Your task to perform on an android device: change the clock style Image 0: 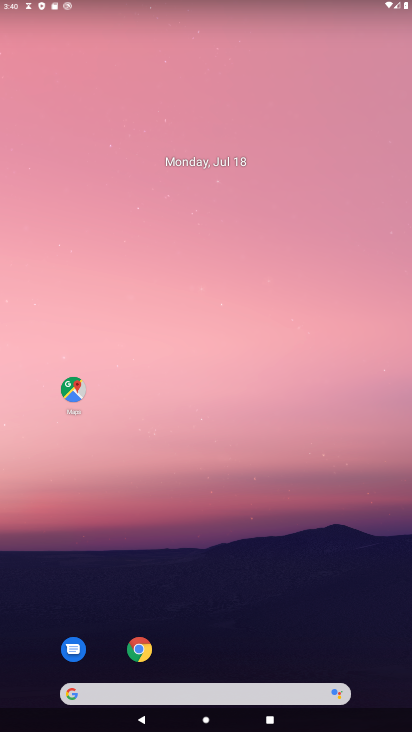
Step 0: press home button
Your task to perform on an android device: change the clock style Image 1: 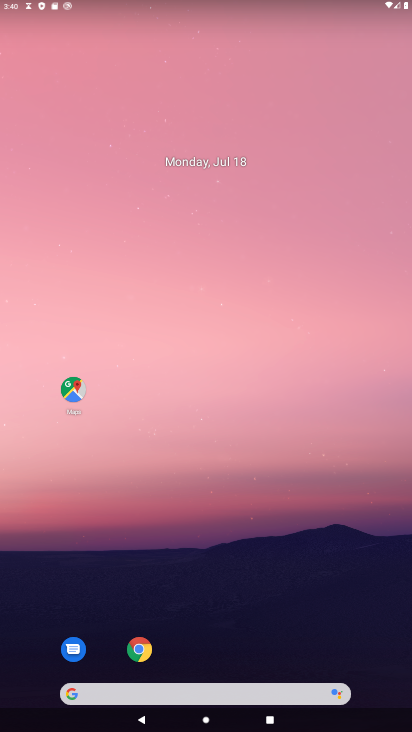
Step 1: drag from (252, 549) to (191, 8)
Your task to perform on an android device: change the clock style Image 2: 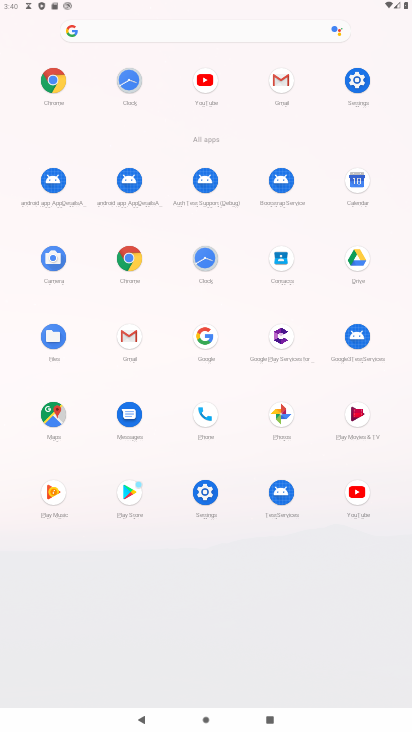
Step 2: click (206, 257)
Your task to perform on an android device: change the clock style Image 3: 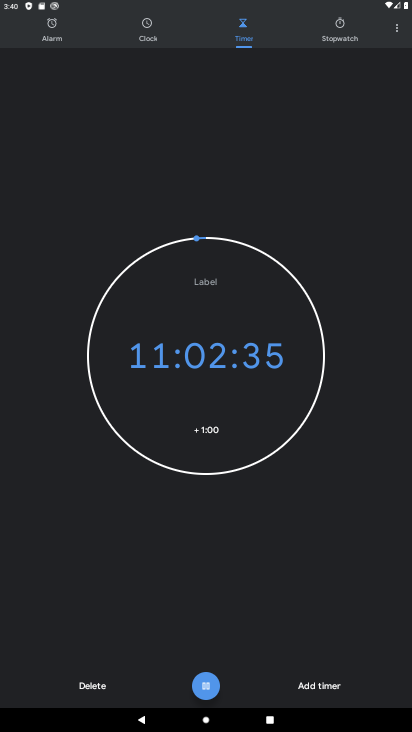
Step 3: click (392, 30)
Your task to perform on an android device: change the clock style Image 4: 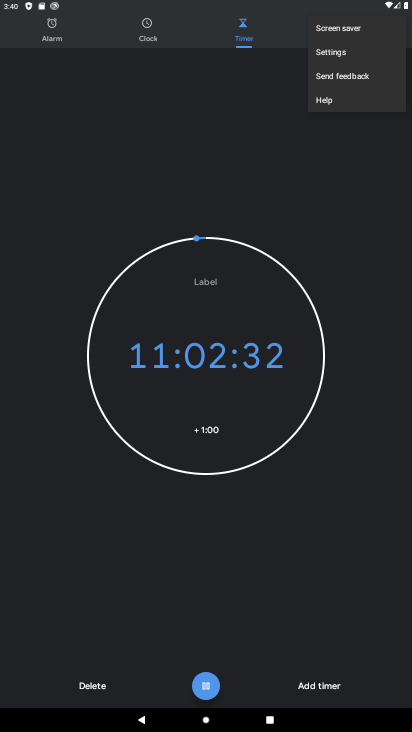
Step 4: click (337, 56)
Your task to perform on an android device: change the clock style Image 5: 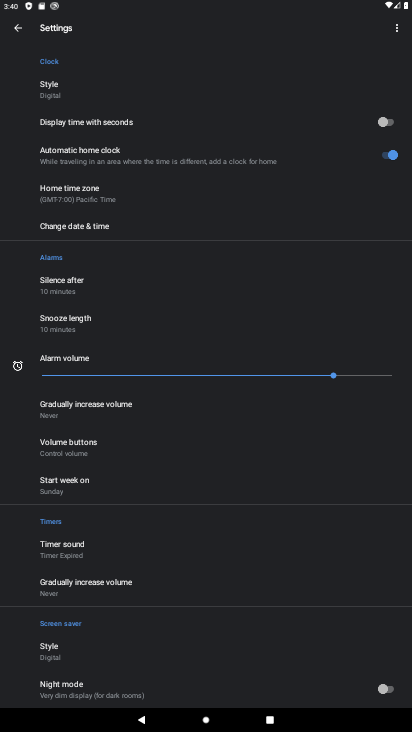
Step 5: click (50, 83)
Your task to perform on an android device: change the clock style Image 6: 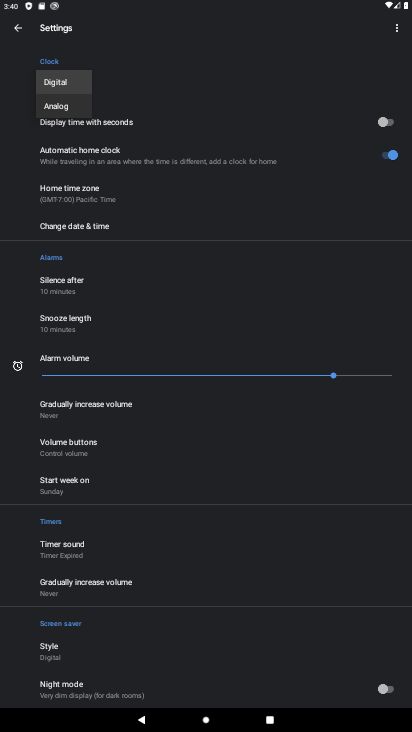
Step 6: click (56, 108)
Your task to perform on an android device: change the clock style Image 7: 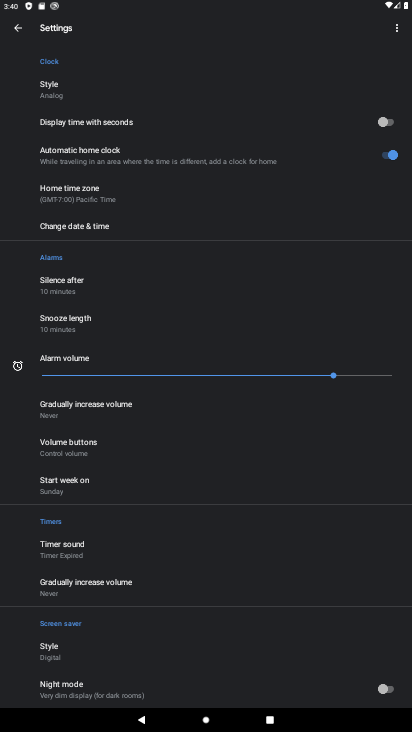
Step 7: task complete